Your task to perform on an android device: Go to Android settings Image 0: 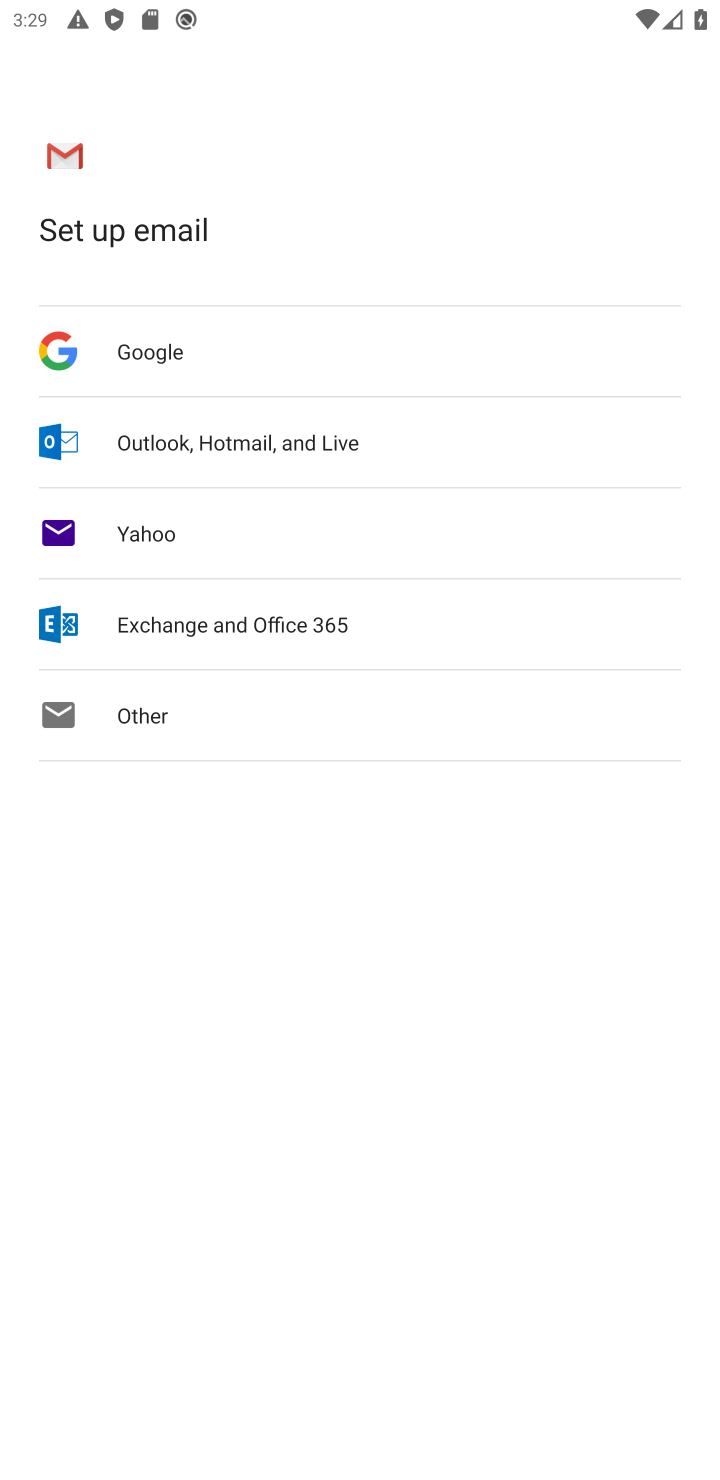
Step 0: press home button
Your task to perform on an android device: Go to Android settings Image 1: 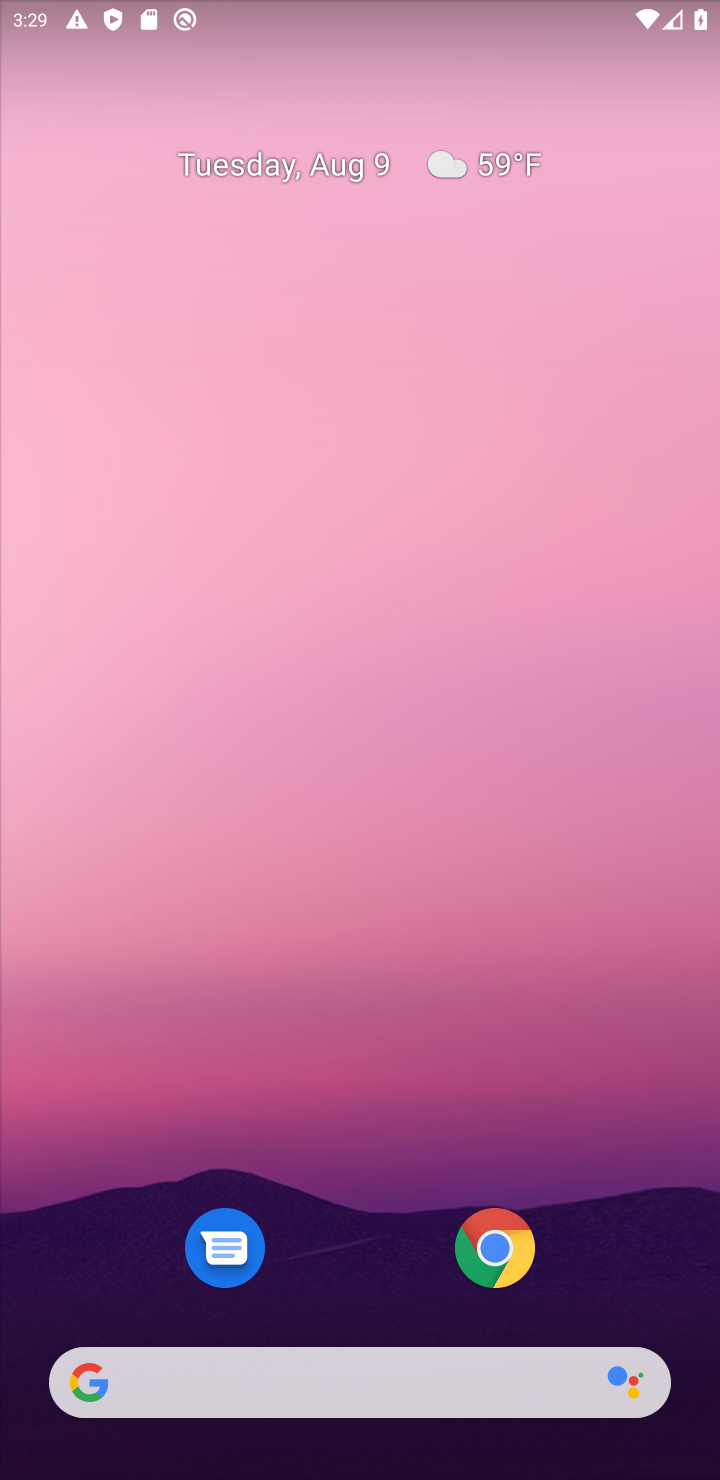
Step 1: drag from (283, 1182) to (197, 246)
Your task to perform on an android device: Go to Android settings Image 2: 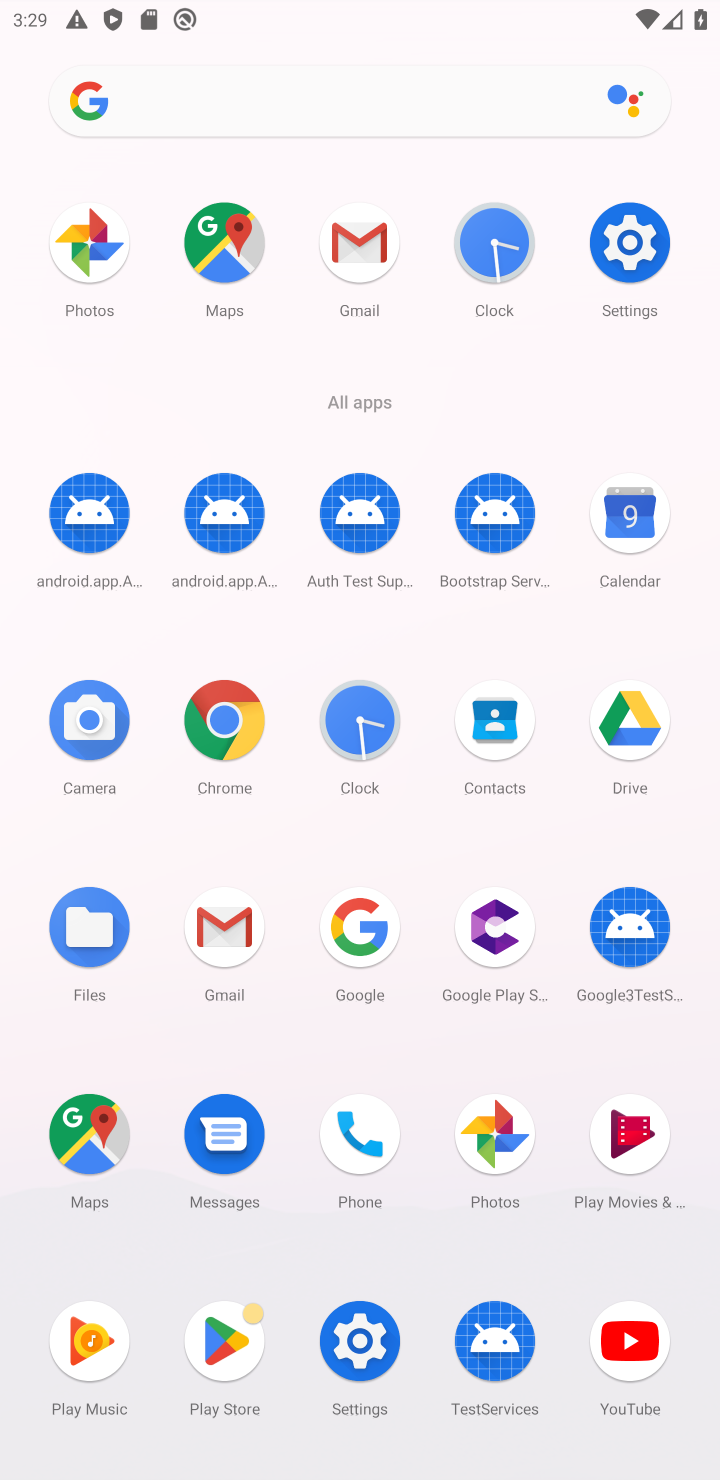
Step 2: click (637, 236)
Your task to perform on an android device: Go to Android settings Image 3: 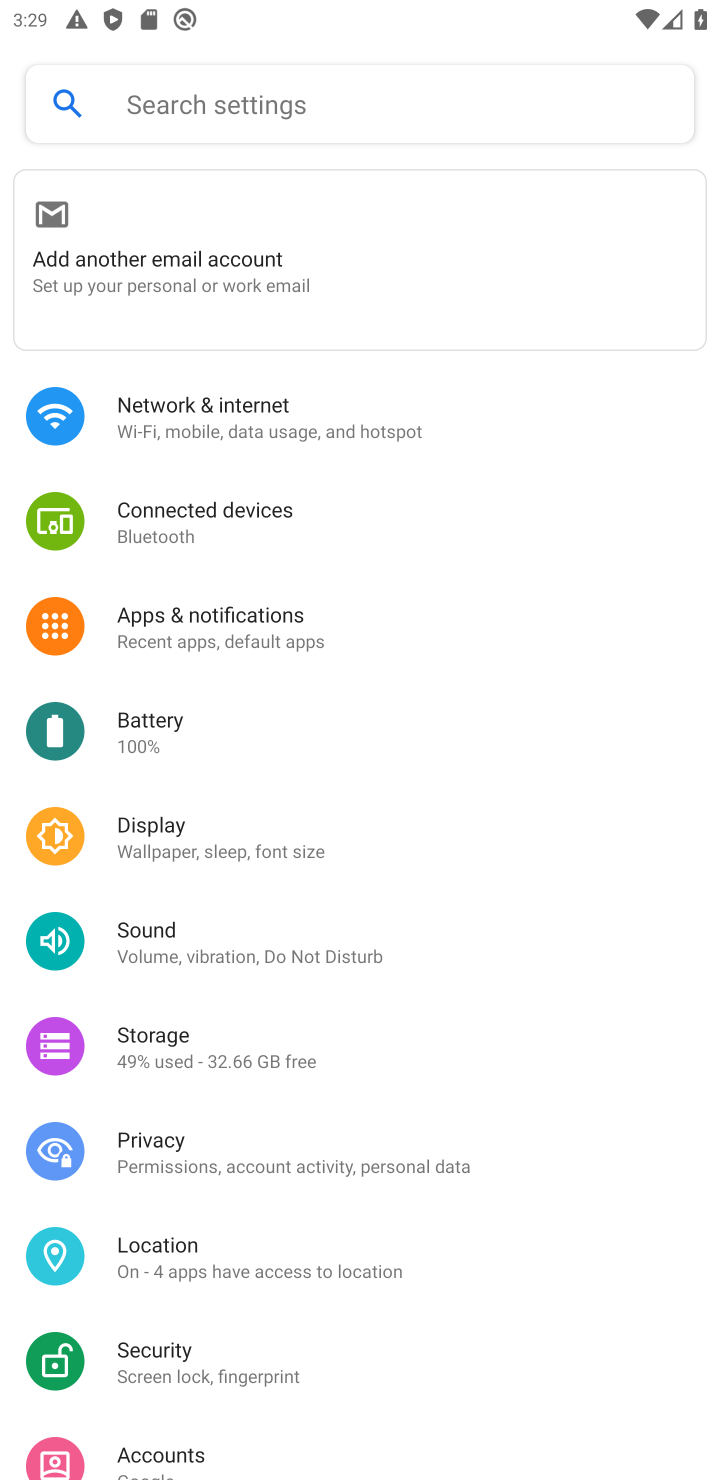
Step 3: task complete